Your task to perform on an android device: check battery use Image 0: 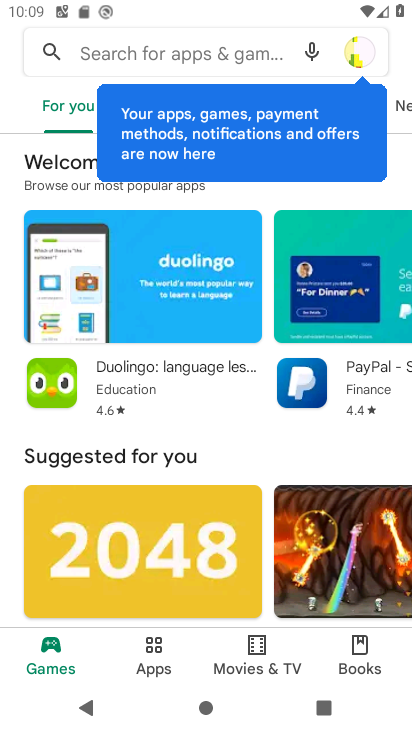
Step 0: press home button
Your task to perform on an android device: check battery use Image 1: 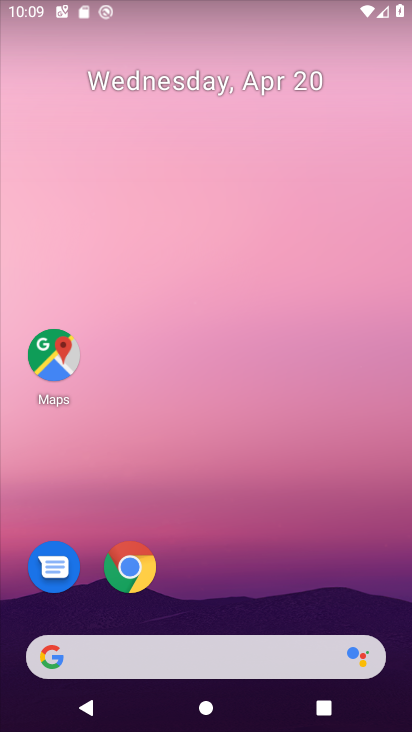
Step 1: drag from (316, 521) to (381, 217)
Your task to perform on an android device: check battery use Image 2: 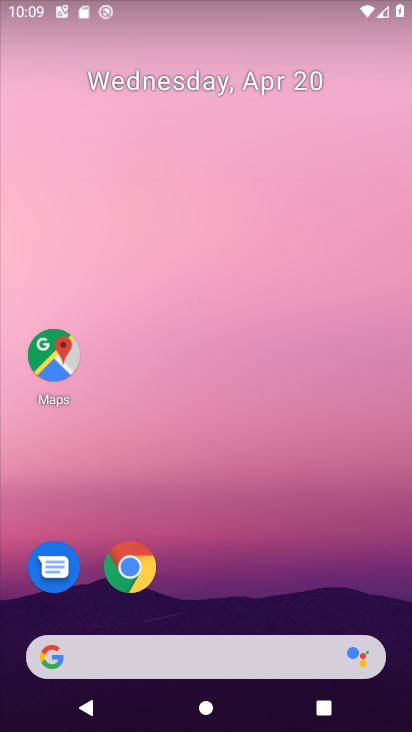
Step 2: drag from (322, 545) to (328, 136)
Your task to perform on an android device: check battery use Image 3: 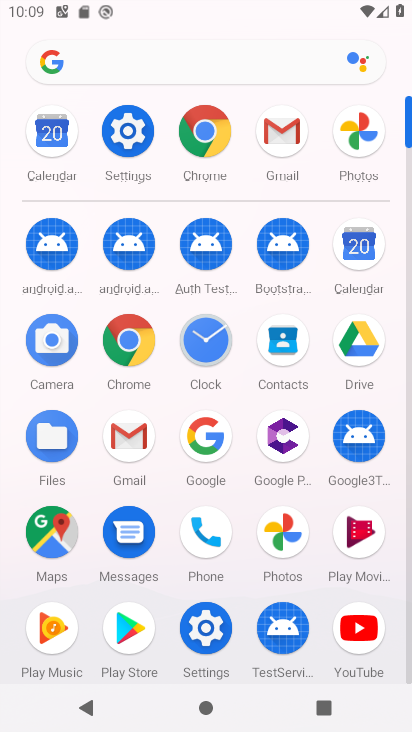
Step 3: click (125, 130)
Your task to perform on an android device: check battery use Image 4: 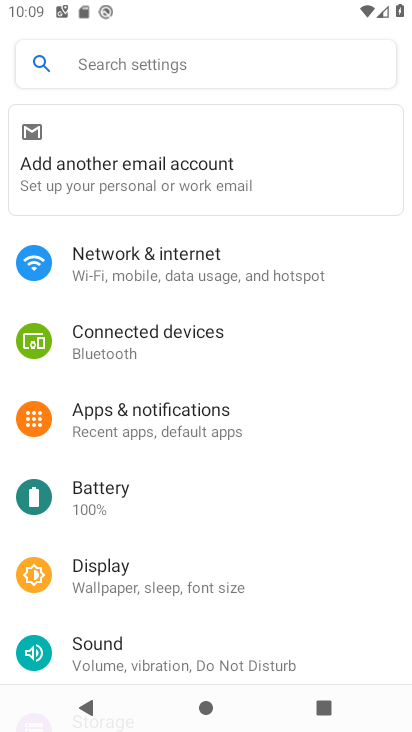
Step 4: drag from (316, 522) to (319, 378)
Your task to perform on an android device: check battery use Image 5: 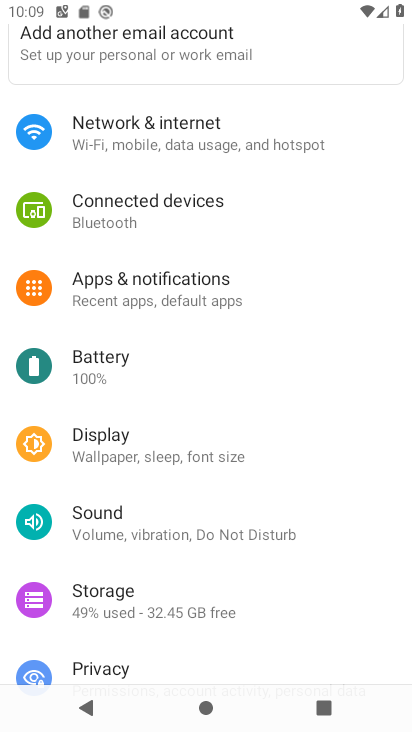
Step 5: drag from (334, 454) to (353, 350)
Your task to perform on an android device: check battery use Image 6: 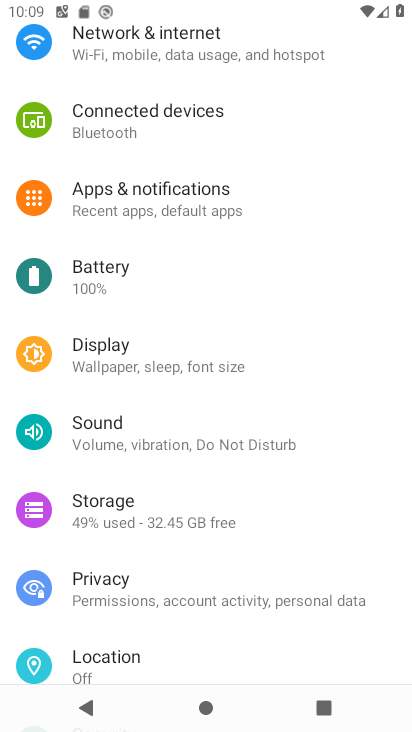
Step 6: drag from (347, 450) to (355, 354)
Your task to perform on an android device: check battery use Image 7: 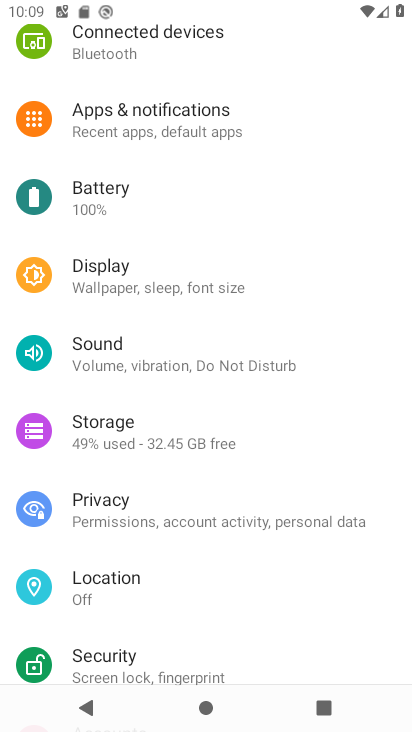
Step 7: drag from (363, 412) to (371, 330)
Your task to perform on an android device: check battery use Image 8: 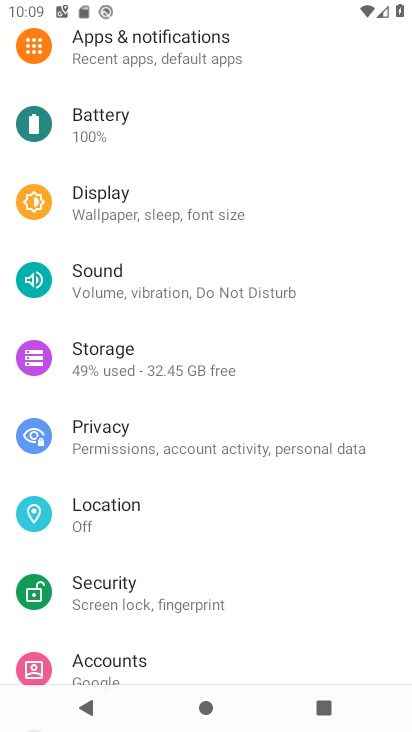
Step 8: drag from (369, 414) to (378, 357)
Your task to perform on an android device: check battery use Image 9: 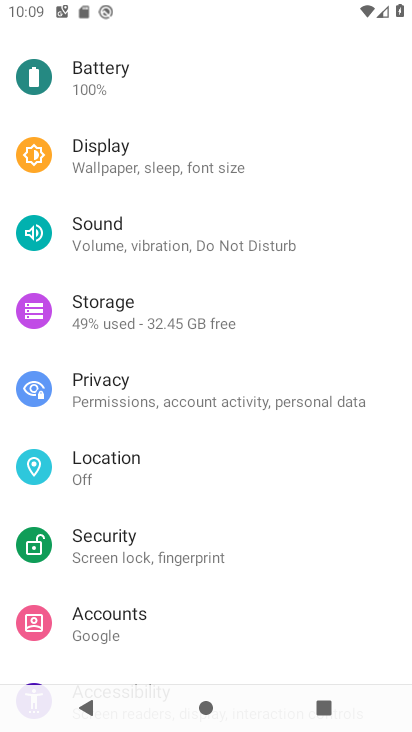
Step 9: click (378, 392)
Your task to perform on an android device: check battery use Image 10: 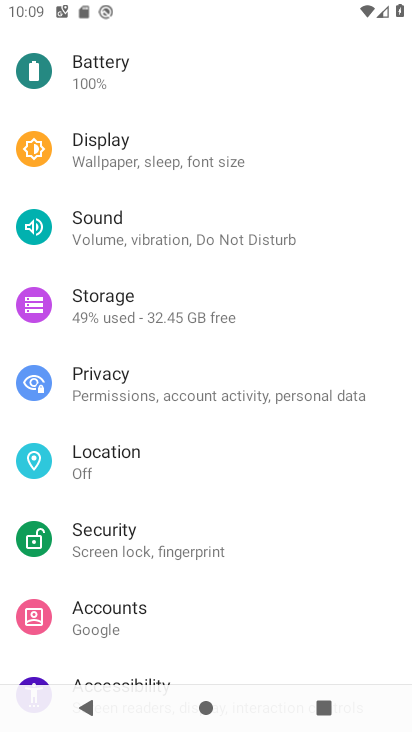
Step 10: drag from (376, 397) to (386, 353)
Your task to perform on an android device: check battery use Image 11: 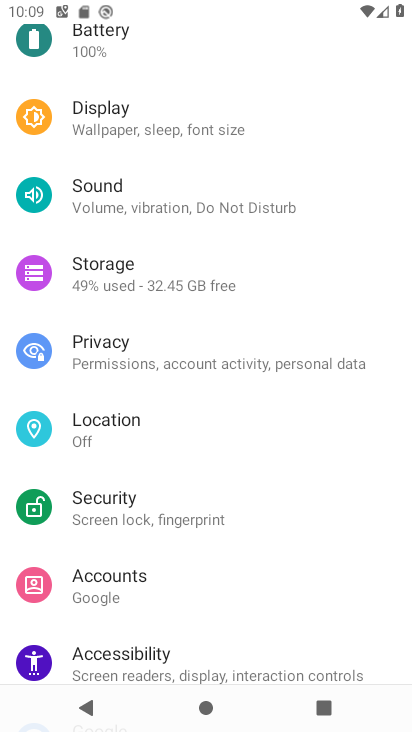
Step 11: drag from (353, 492) to (356, 451)
Your task to perform on an android device: check battery use Image 12: 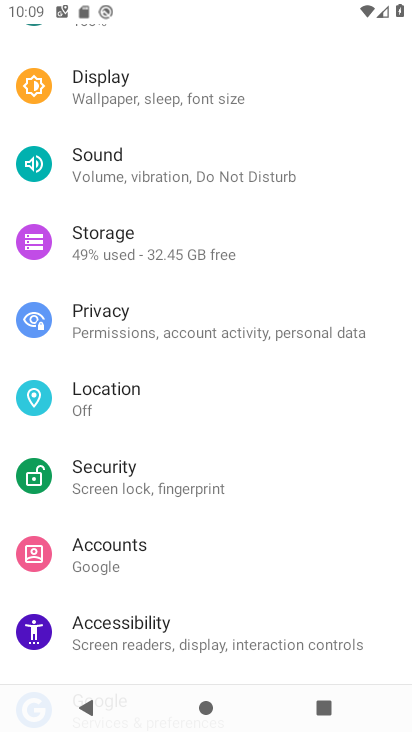
Step 12: drag from (350, 535) to (354, 456)
Your task to perform on an android device: check battery use Image 13: 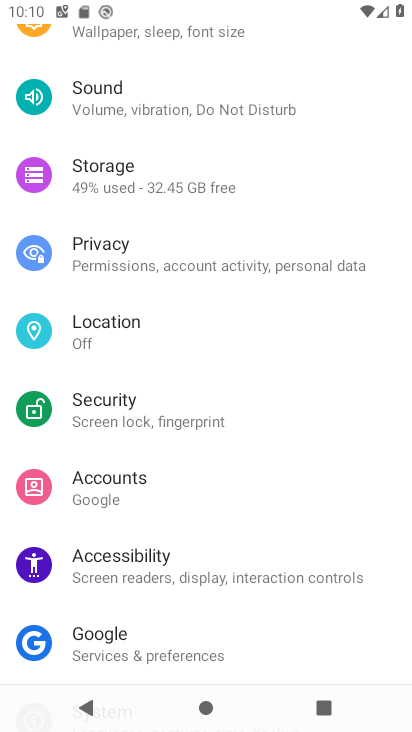
Step 13: drag from (348, 504) to (357, 460)
Your task to perform on an android device: check battery use Image 14: 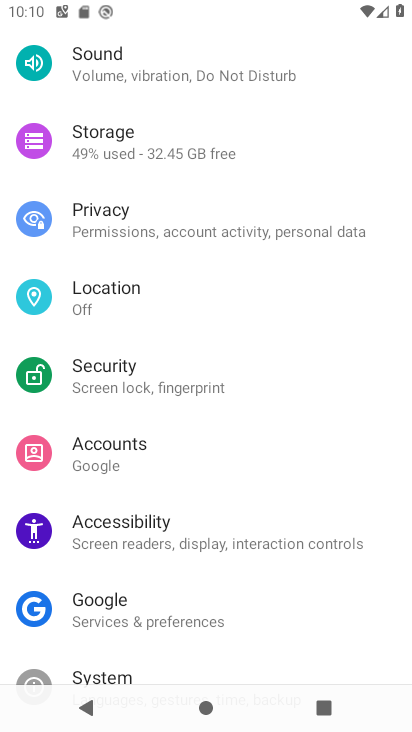
Step 14: drag from (354, 608) to (348, 472)
Your task to perform on an android device: check battery use Image 15: 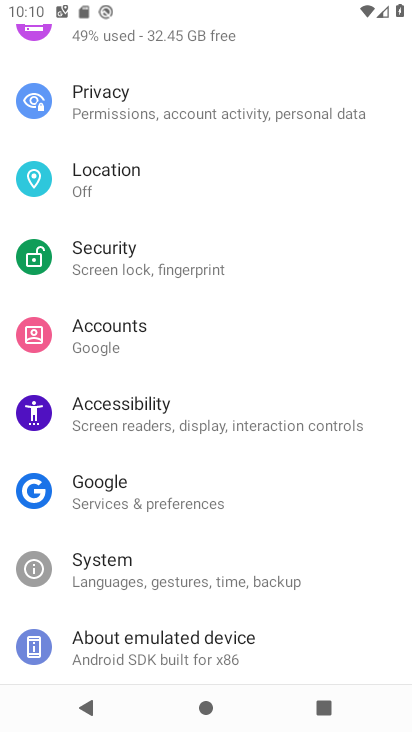
Step 15: drag from (352, 365) to (351, 440)
Your task to perform on an android device: check battery use Image 16: 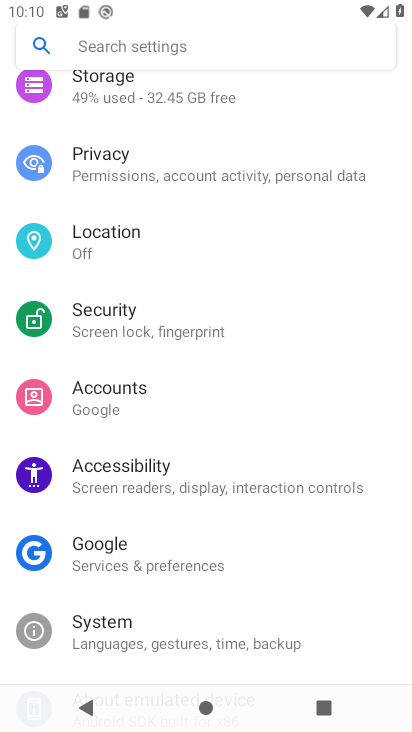
Step 16: drag from (359, 367) to (362, 417)
Your task to perform on an android device: check battery use Image 17: 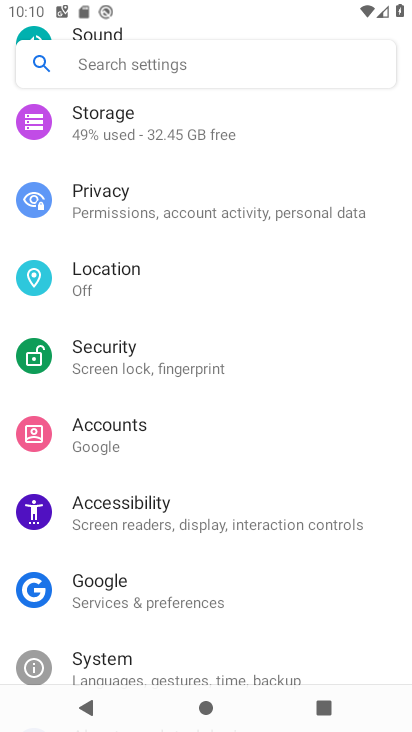
Step 17: drag from (364, 383) to (365, 426)
Your task to perform on an android device: check battery use Image 18: 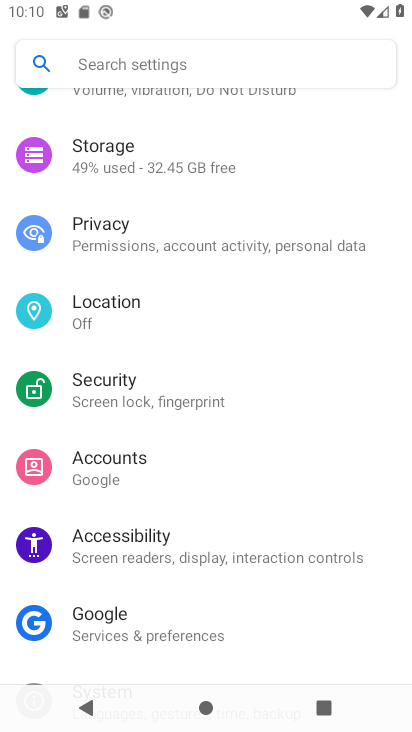
Step 18: click (357, 350)
Your task to perform on an android device: check battery use Image 19: 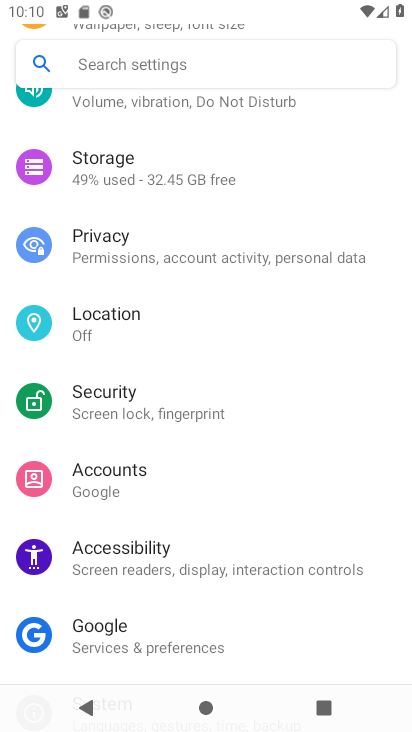
Step 19: drag from (370, 352) to (382, 436)
Your task to perform on an android device: check battery use Image 20: 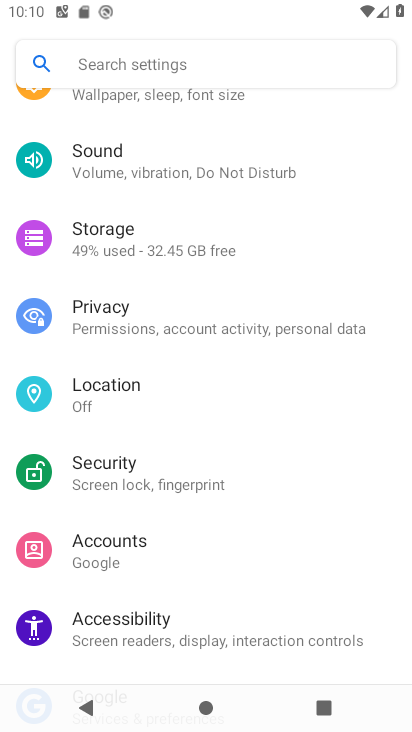
Step 20: drag from (381, 394) to (388, 449)
Your task to perform on an android device: check battery use Image 21: 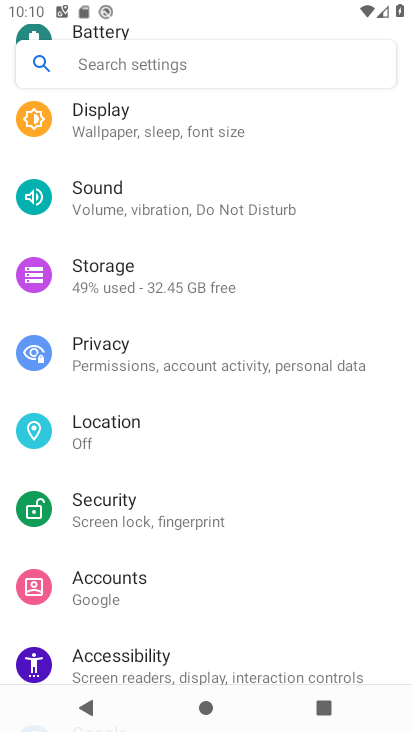
Step 21: click (388, 449)
Your task to perform on an android device: check battery use Image 22: 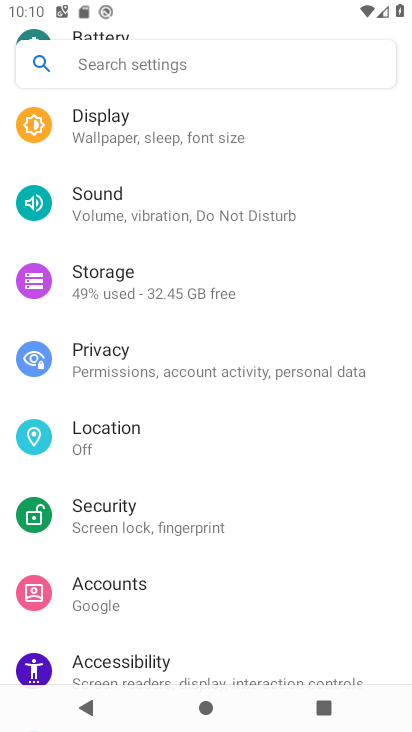
Step 22: drag from (382, 312) to (411, 445)
Your task to perform on an android device: check battery use Image 23: 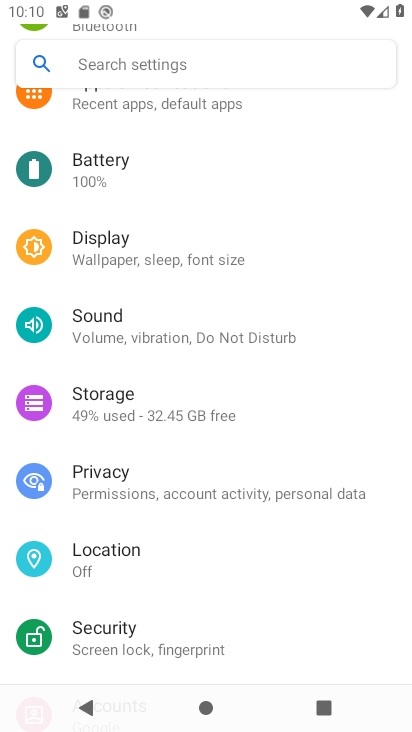
Step 23: drag from (383, 339) to (394, 406)
Your task to perform on an android device: check battery use Image 24: 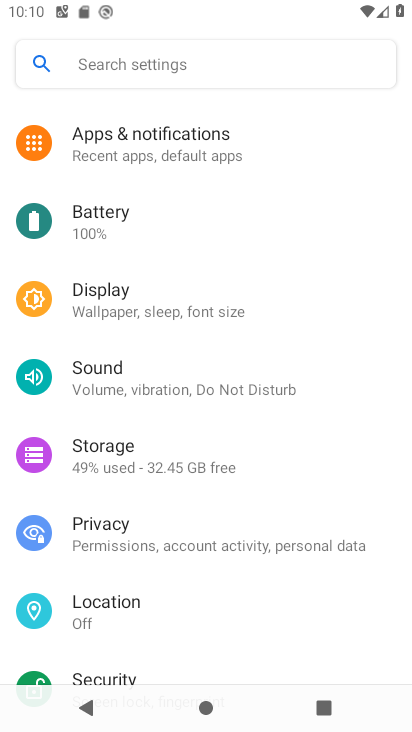
Step 24: drag from (385, 354) to (392, 397)
Your task to perform on an android device: check battery use Image 25: 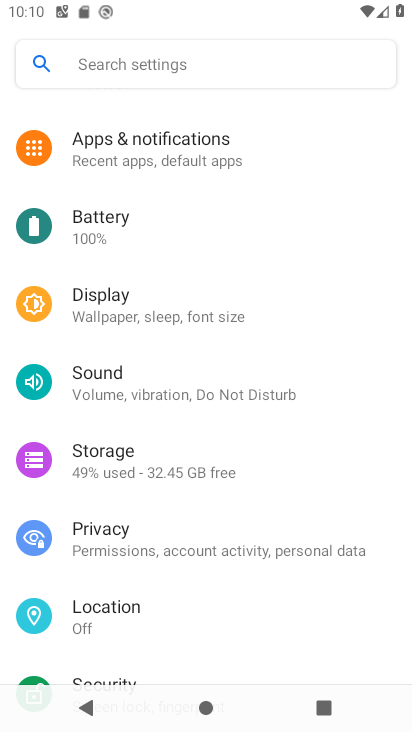
Step 25: drag from (376, 341) to (404, 466)
Your task to perform on an android device: check battery use Image 26: 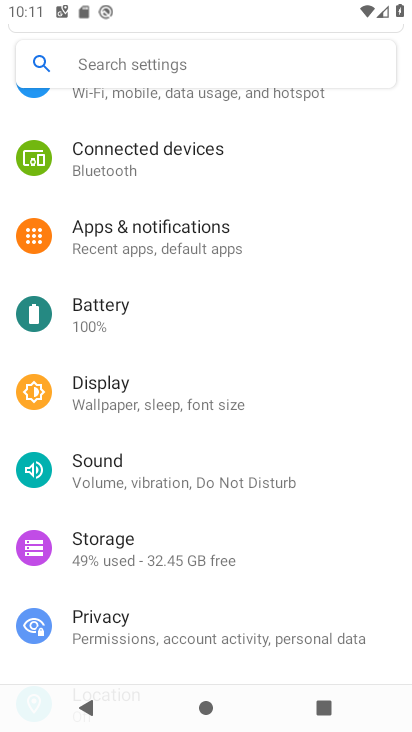
Step 26: drag from (372, 327) to (378, 438)
Your task to perform on an android device: check battery use Image 27: 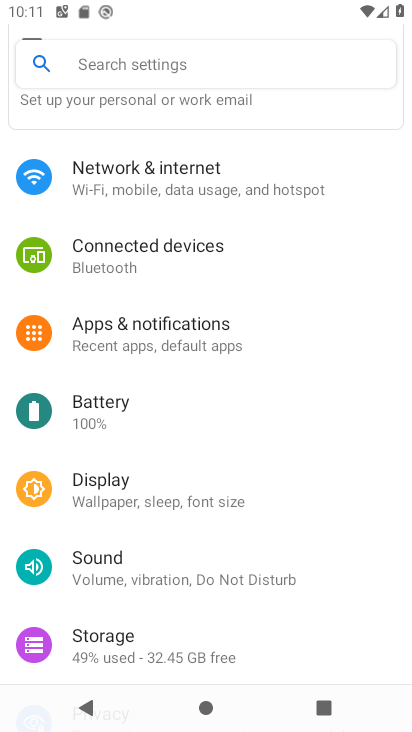
Step 27: drag from (376, 369) to (382, 433)
Your task to perform on an android device: check battery use Image 28: 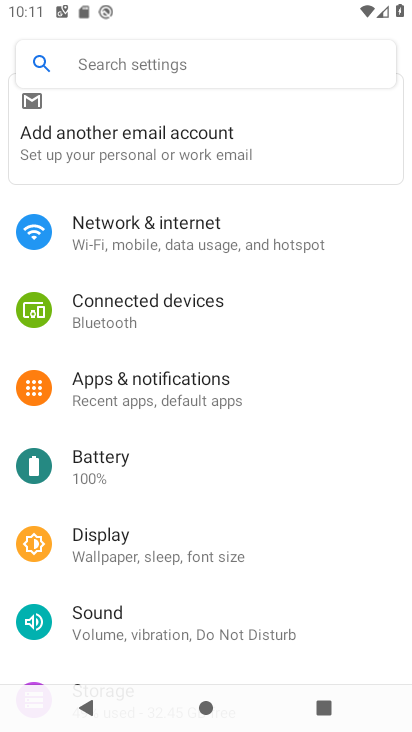
Step 28: click (383, 402)
Your task to perform on an android device: check battery use Image 29: 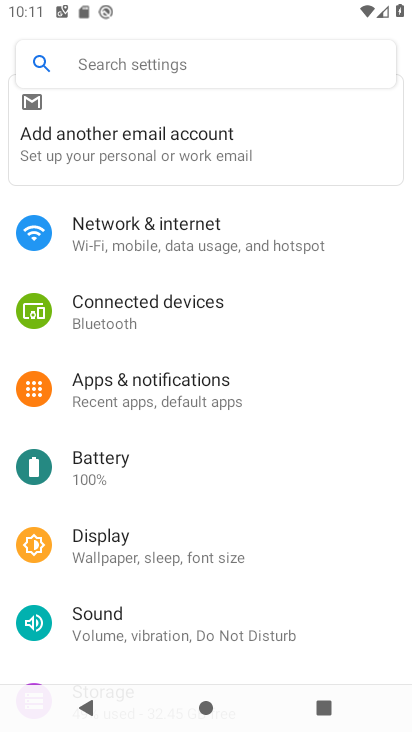
Step 29: click (388, 394)
Your task to perform on an android device: check battery use Image 30: 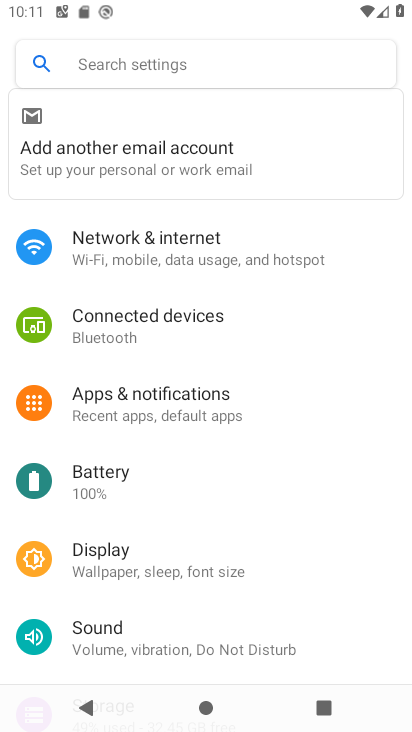
Step 30: drag from (354, 353) to (364, 520)
Your task to perform on an android device: check battery use Image 31: 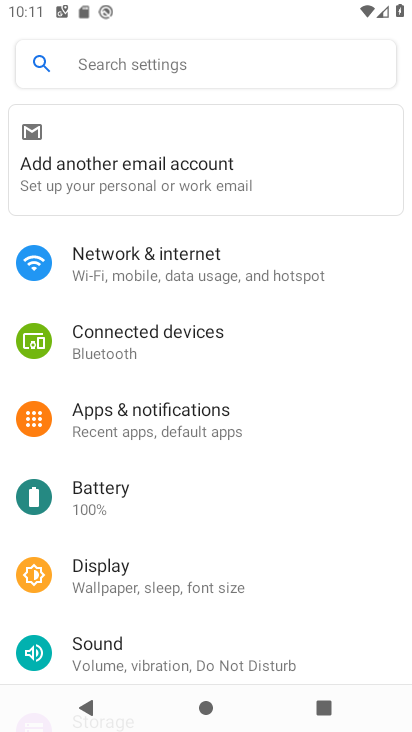
Step 31: click (119, 510)
Your task to perform on an android device: check battery use Image 32: 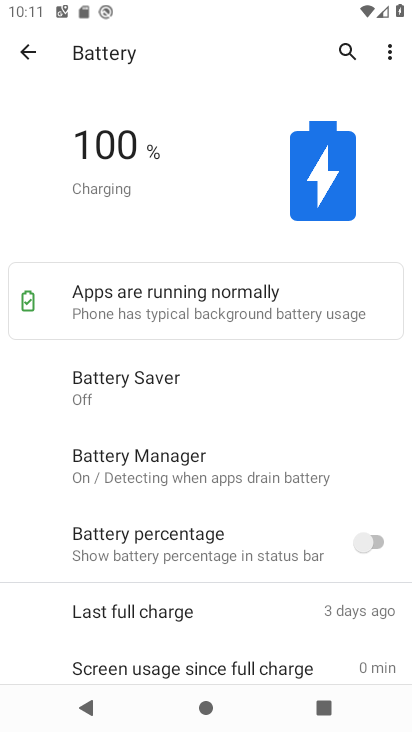
Step 32: click (390, 54)
Your task to perform on an android device: check battery use Image 33: 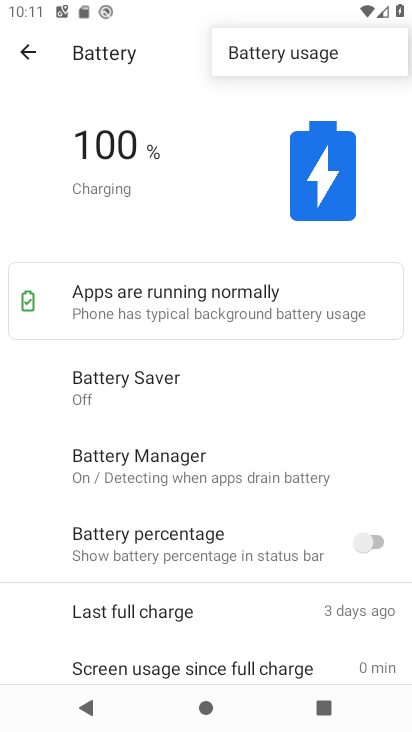
Step 33: click (341, 57)
Your task to perform on an android device: check battery use Image 34: 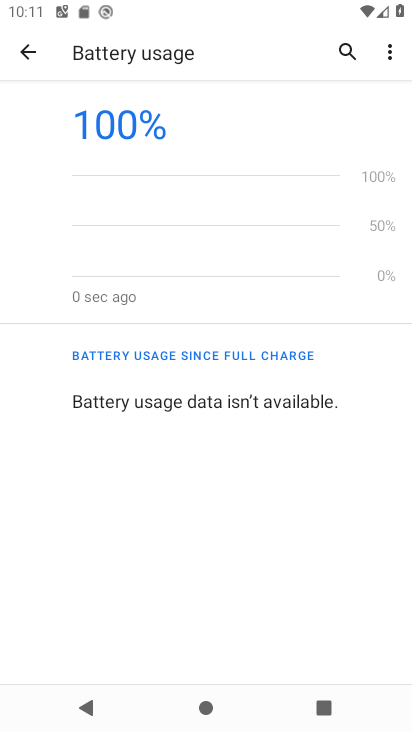
Step 34: task complete